Your task to perform on an android device: turn on notifications settings in the gmail app Image 0: 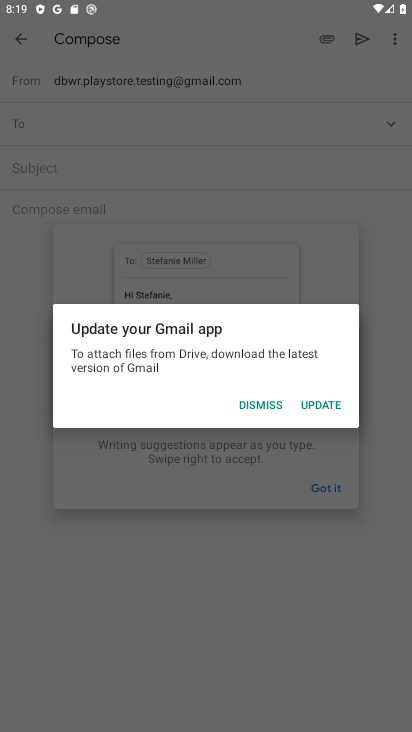
Step 0: press home button
Your task to perform on an android device: turn on notifications settings in the gmail app Image 1: 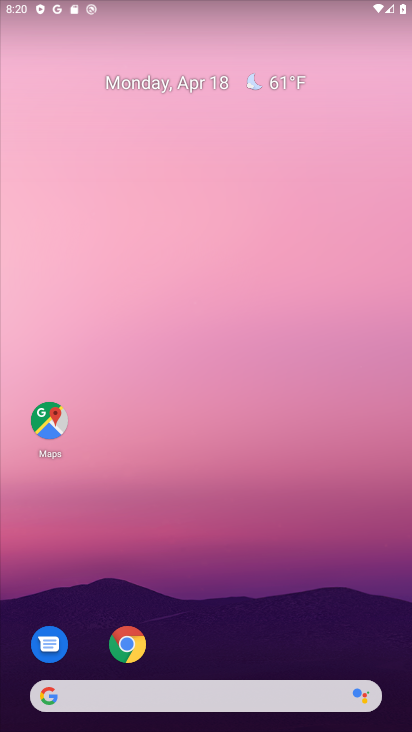
Step 1: drag from (200, 691) to (172, 239)
Your task to perform on an android device: turn on notifications settings in the gmail app Image 2: 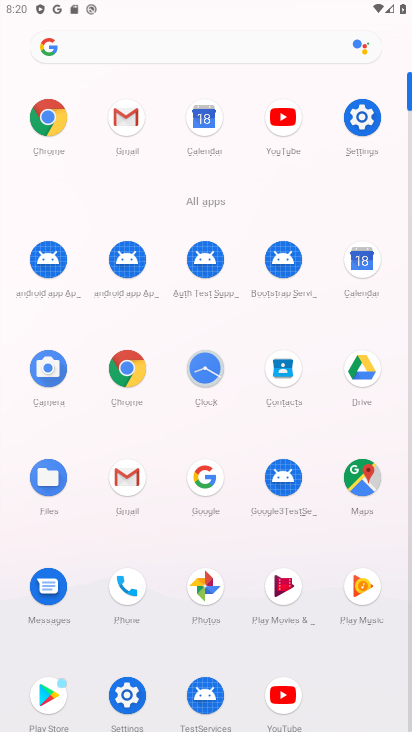
Step 2: click (139, 484)
Your task to perform on an android device: turn on notifications settings in the gmail app Image 3: 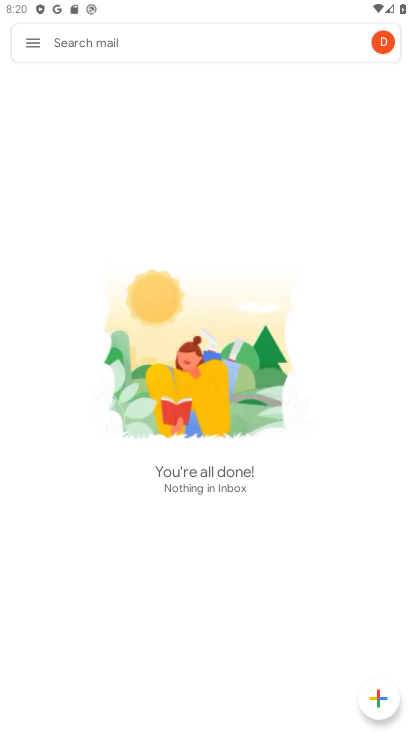
Step 3: click (32, 39)
Your task to perform on an android device: turn on notifications settings in the gmail app Image 4: 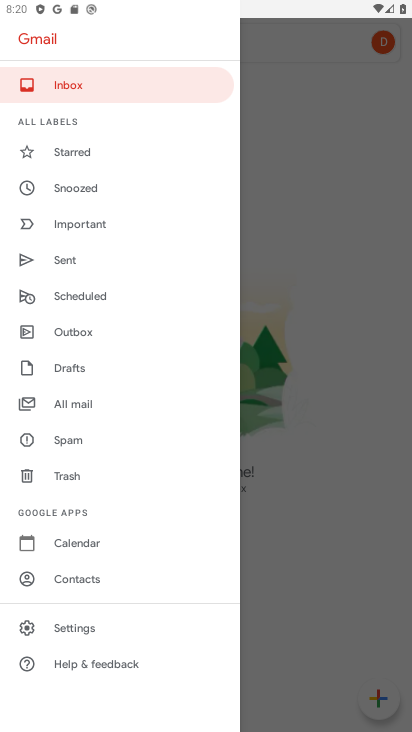
Step 4: click (80, 631)
Your task to perform on an android device: turn on notifications settings in the gmail app Image 5: 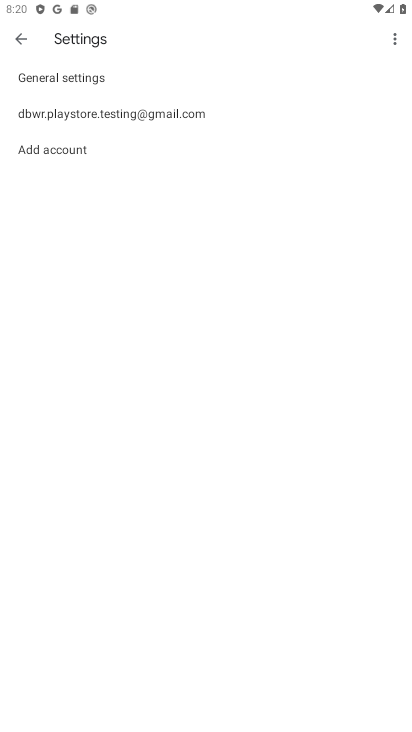
Step 5: click (138, 110)
Your task to perform on an android device: turn on notifications settings in the gmail app Image 6: 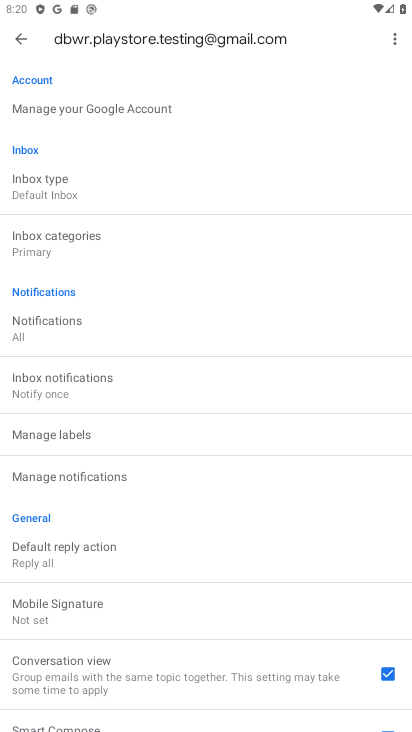
Step 6: click (100, 482)
Your task to perform on an android device: turn on notifications settings in the gmail app Image 7: 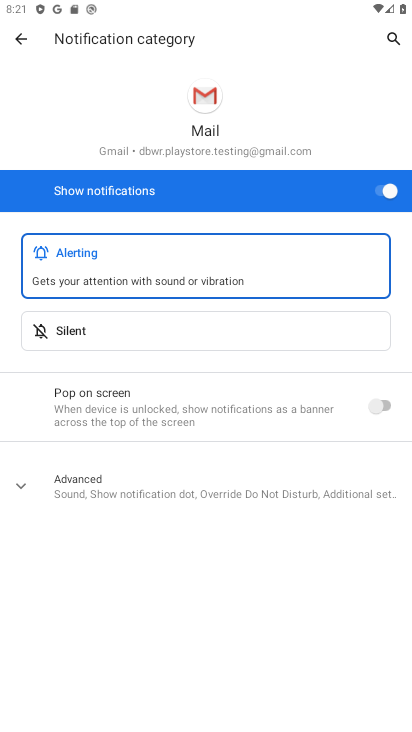
Step 7: task complete